Your task to perform on an android device: What's on my calendar tomorrow? Image 0: 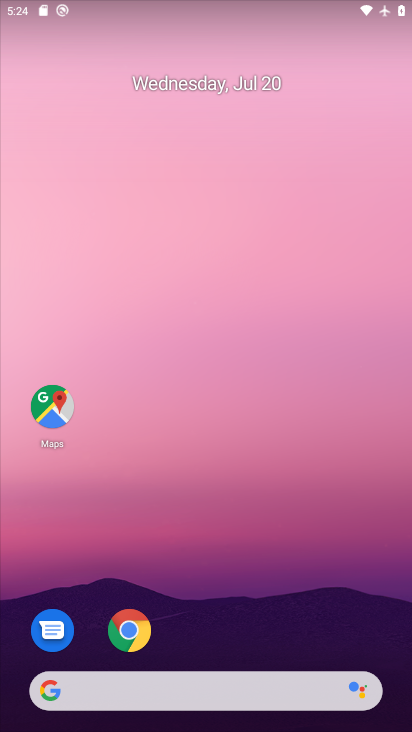
Step 0: press home button
Your task to perform on an android device: What's on my calendar tomorrow? Image 1: 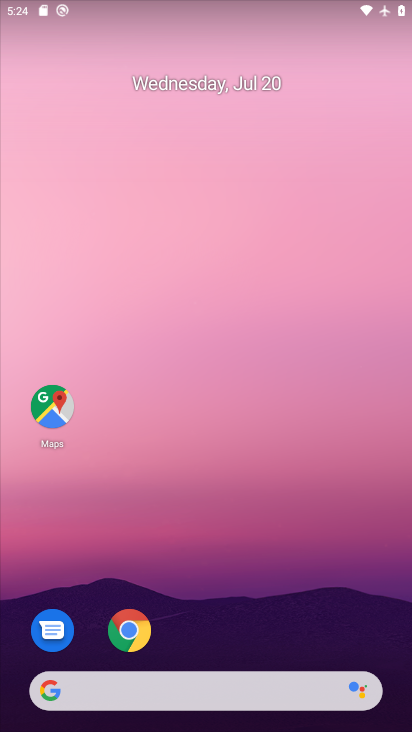
Step 1: drag from (264, 645) to (296, 31)
Your task to perform on an android device: What's on my calendar tomorrow? Image 2: 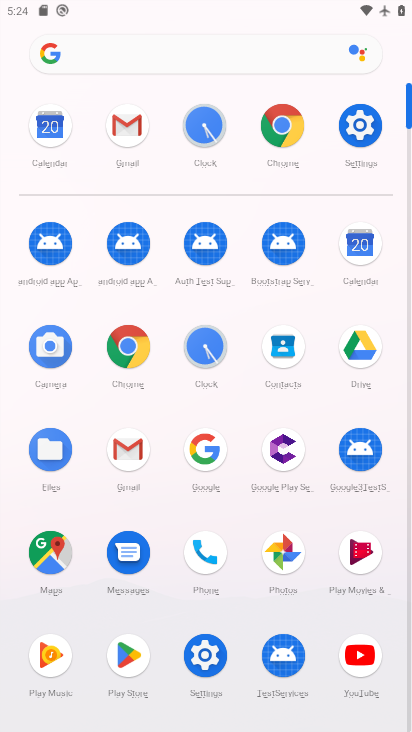
Step 2: click (344, 243)
Your task to perform on an android device: What's on my calendar tomorrow? Image 3: 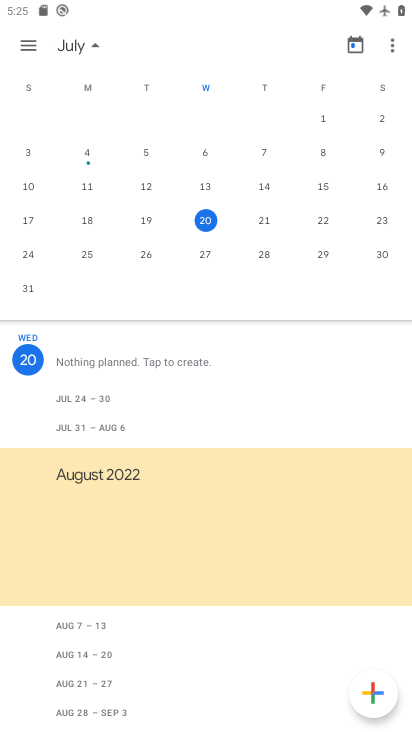
Step 3: click (260, 222)
Your task to perform on an android device: What's on my calendar tomorrow? Image 4: 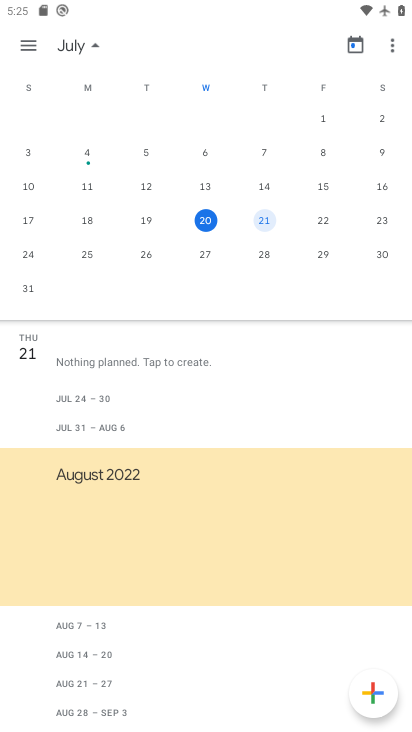
Step 4: task complete